Your task to perform on an android device: Go to location settings Image 0: 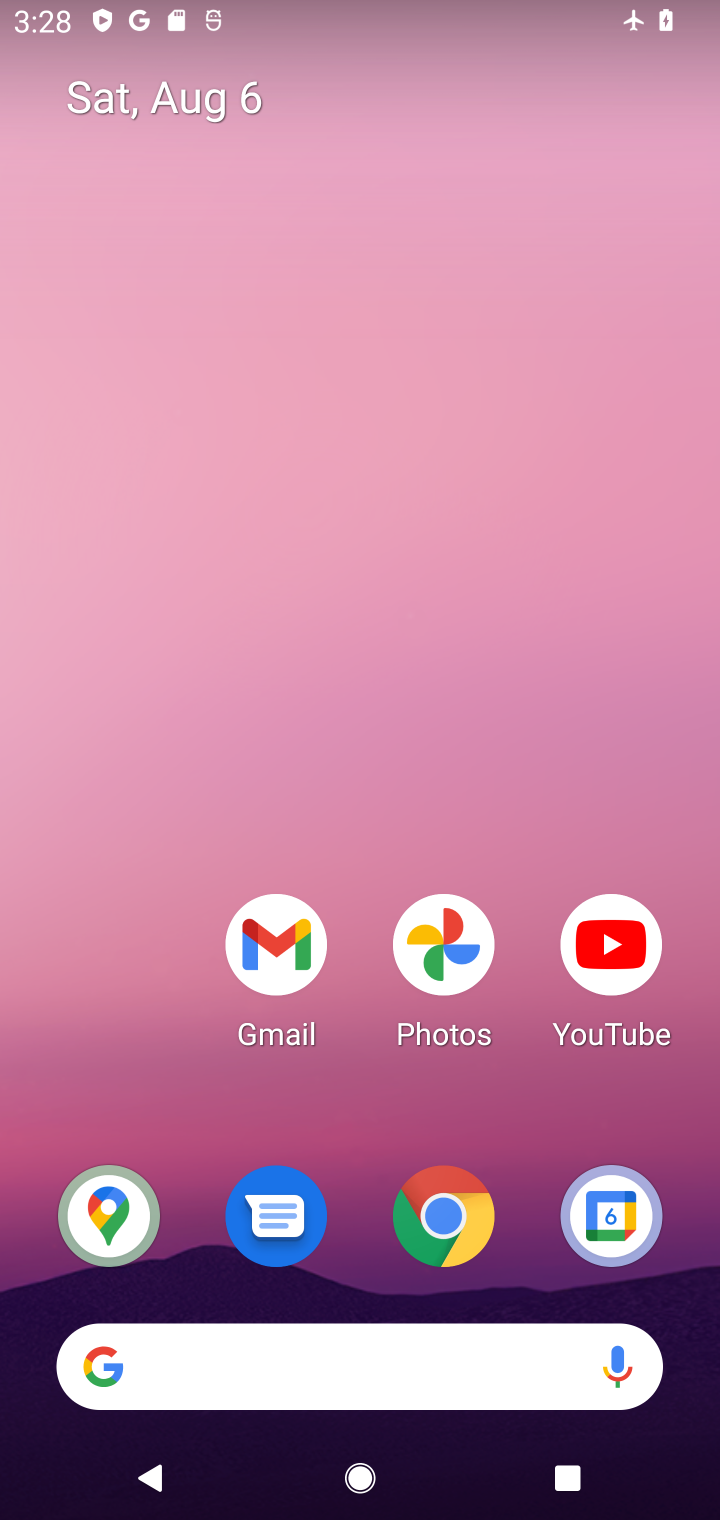
Step 0: drag from (378, 1134) to (315, 288)
Your task to perform on an android device: Go to location settings Image 1: 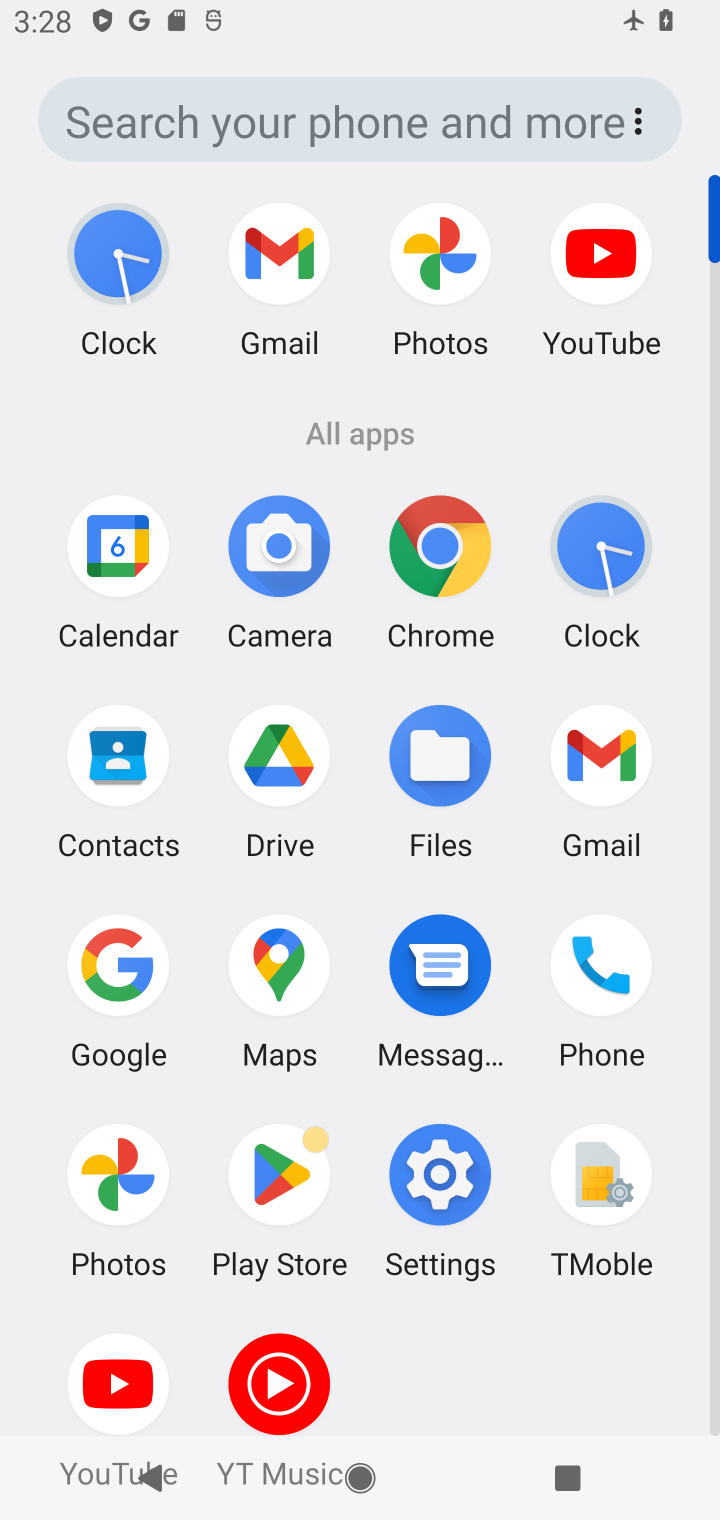
Step 1: click (427, 1158)
Your task to perform on an android device: Go to location settings Image 2: 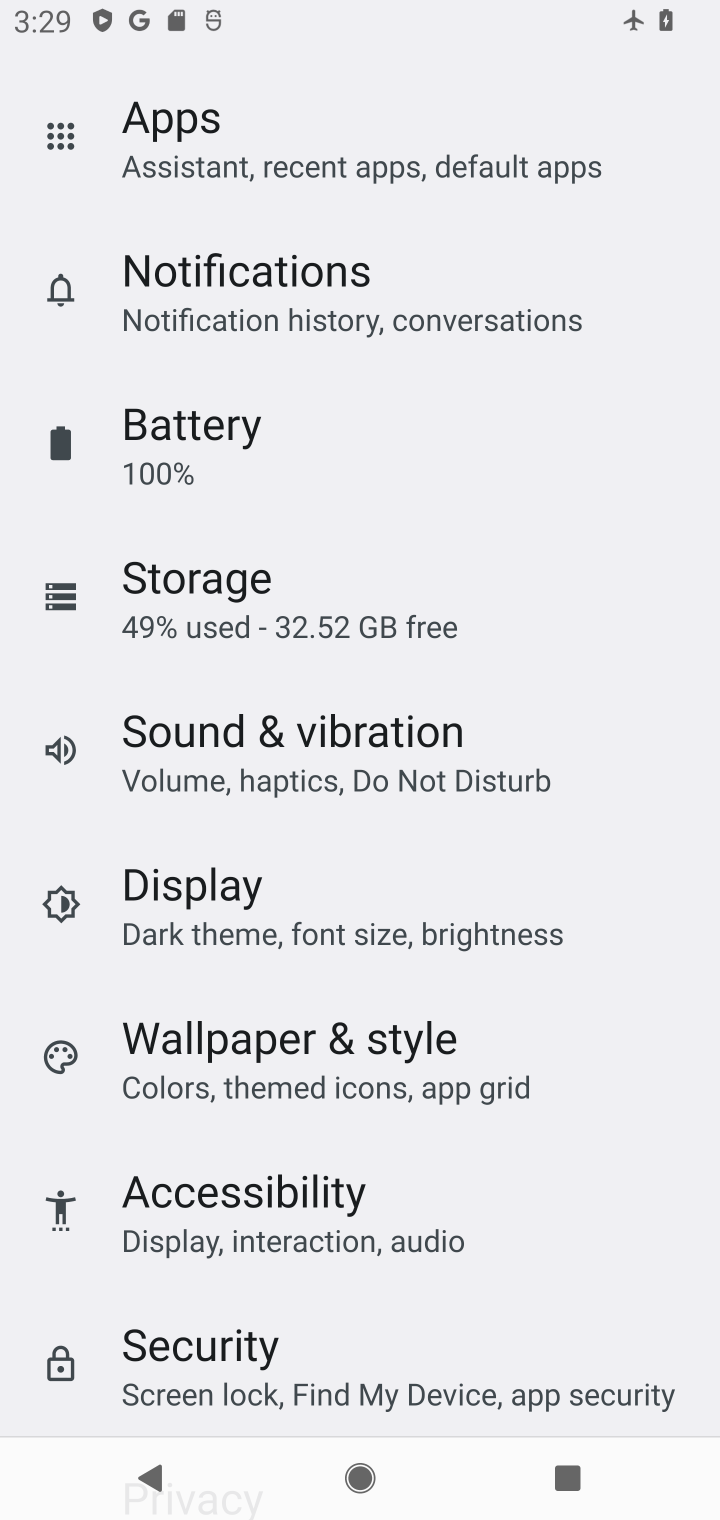
Step 2: drag from (462, 1298) to (389, 673)
Your task to perform on an android device: Go to location settings Image 3: 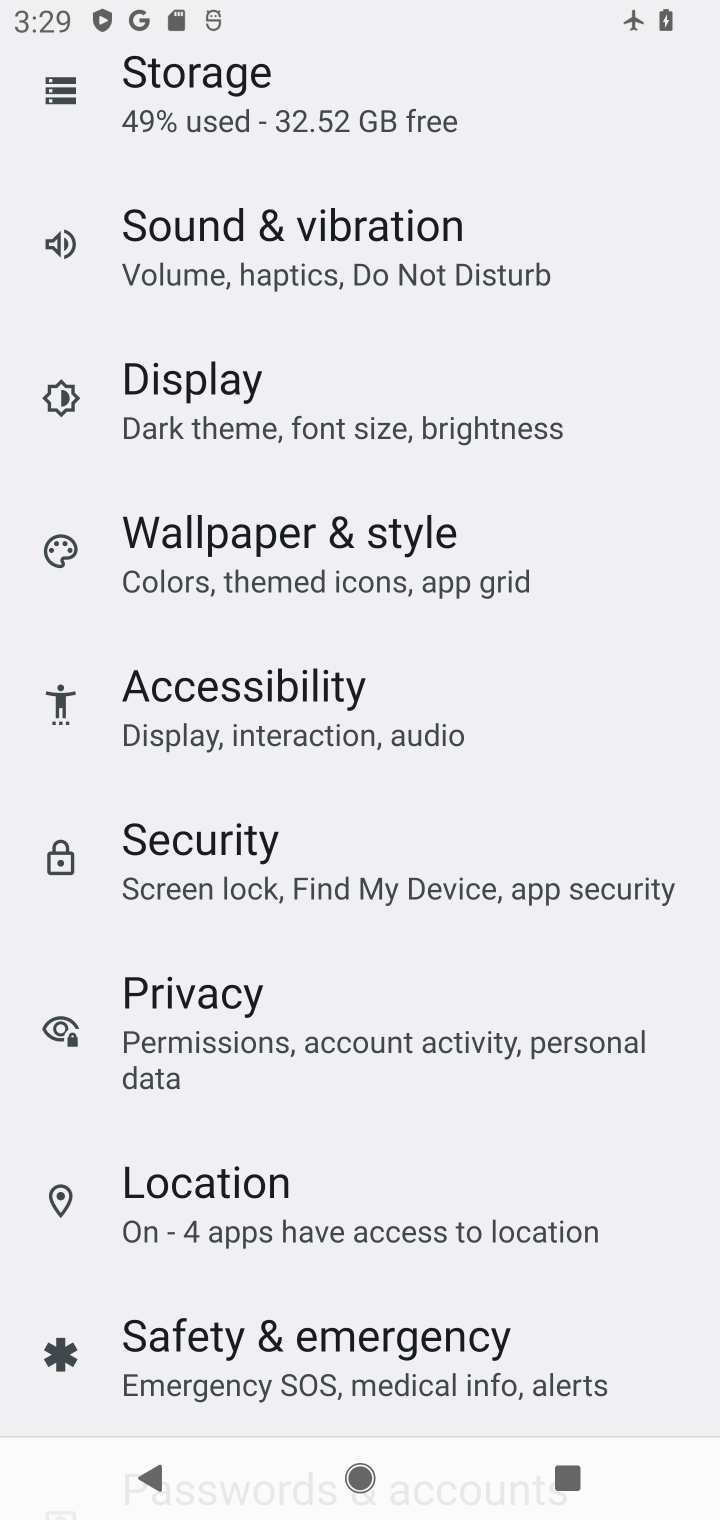
Step 3: click (489, 1218)
Your task to perform on an android device: Go to location settings Image 4: 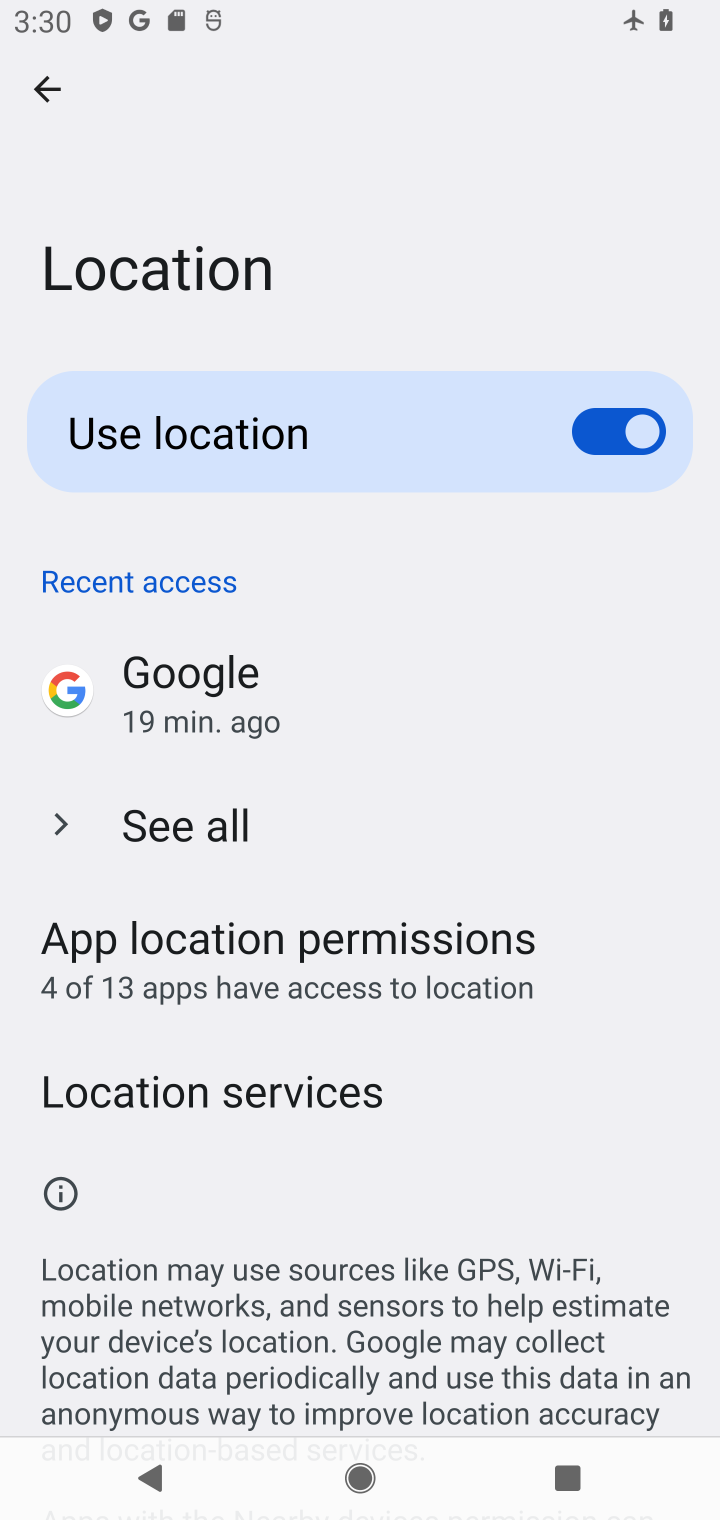
Step 4: task complete